Your task to perform on an android device: Open notification settings Image 0: 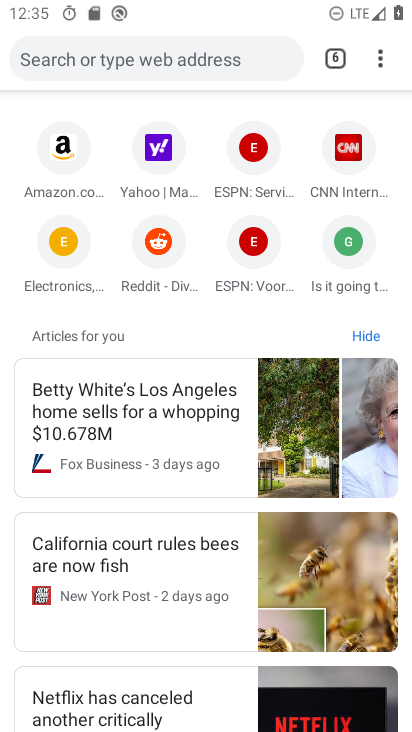
Step 0: press home button
Your task to perform on an android device: Open notification settings Image 1: 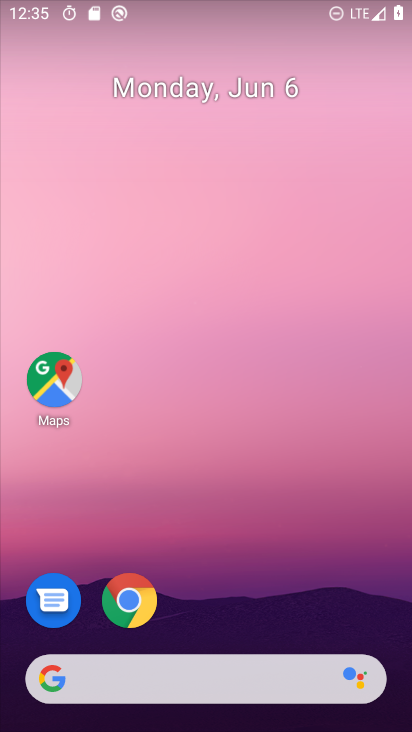
Step 1: drag from (214, 638) to (243, 268)
Your task to perform on an android device: Open notification settings Image 2: 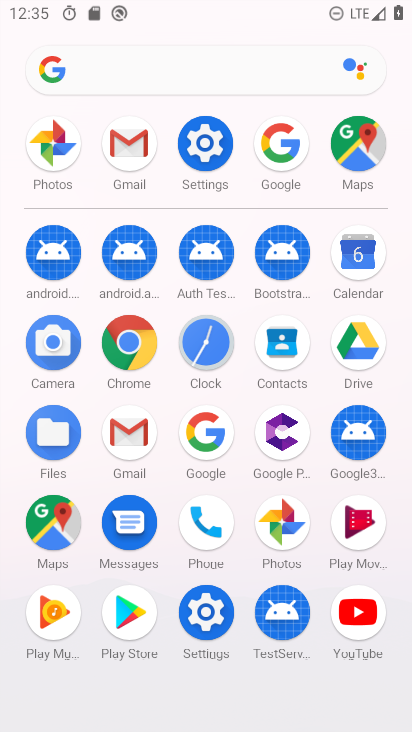
Step 2: click (215, 162)
Your task to perform on an android device: Open notification settings Image 3: 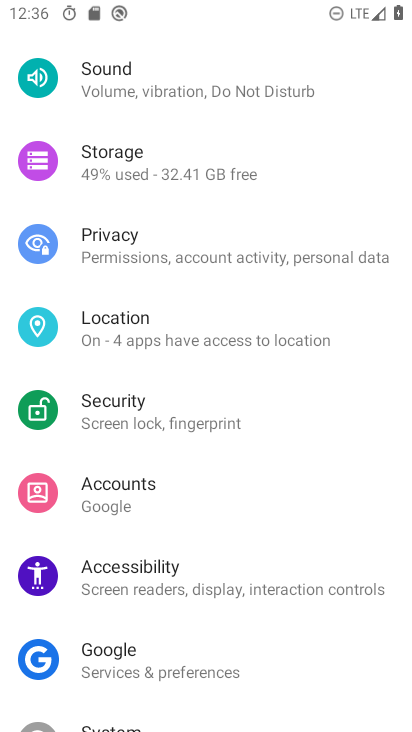
Step 3: drag from (206, 176) to (246, 426)
Your task to perform on an android device: Open notification settings Image 4: 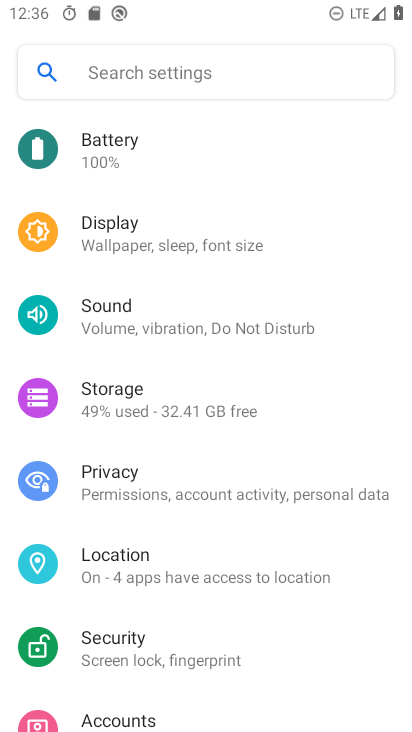
Step 4: drag from (214, 280) to (255, 612)
Your task to perform on an android device: Open notification settings Image 5: 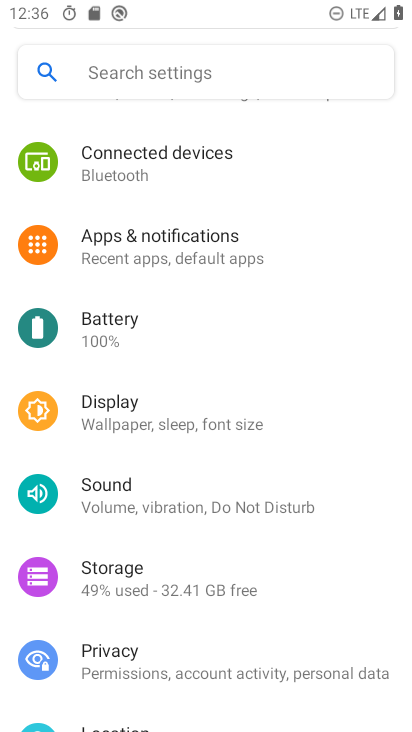
Step 5: click (184, 244)
Your task to perform on an android device: Open notification settings Image 6: 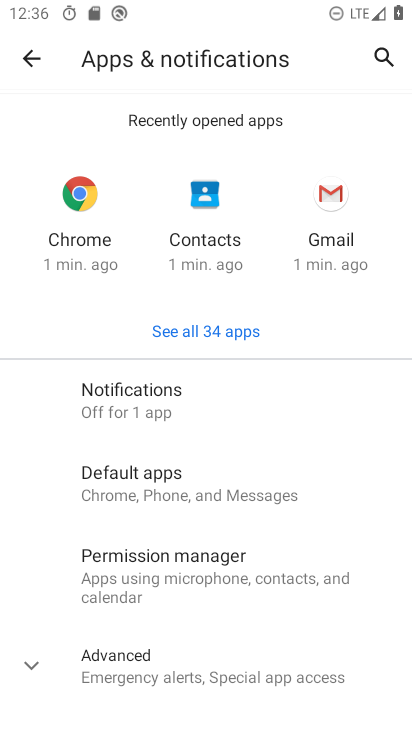
Step 6: click (144, 408)
Your task to perform on an android device: Open notification settings Image 7: 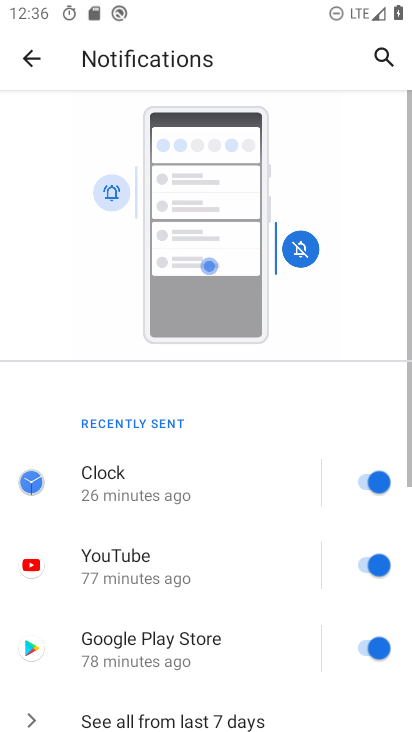
Step 7: task complete